Your task to perform on an android device: manage bookmarks in the chrome app Image 0: 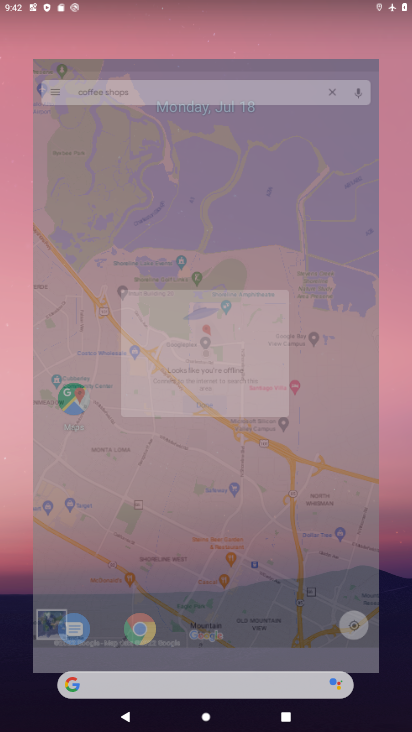
Step 0: drag from (275, 507) to (273, 247)
Your task to perform on an android device: manage bookmarks in the chrome app Image 1: 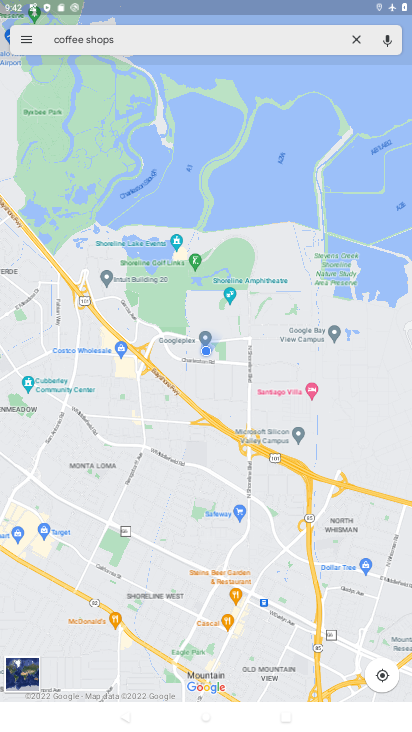
Step 1: press home button
Your task to perform on an android device: manage bookmarks in the chrome app Image 2: 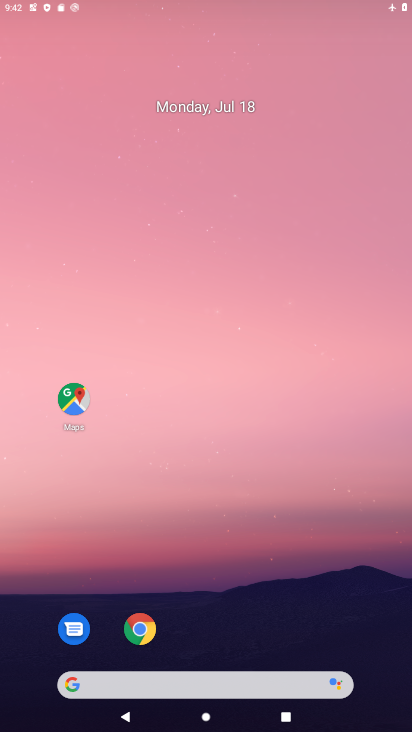
Step 2: drag from (328, 658) to (98, 99)
Your task to perform on an android device: manage bookmarks in the chrome app Image 3: 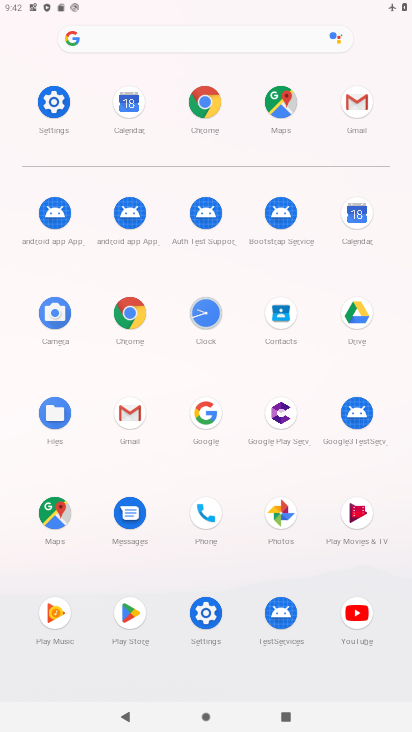
Step 3: click (129, 312)
Your task to perform on an android device: manage bookmarks in the chrome app Image 4: 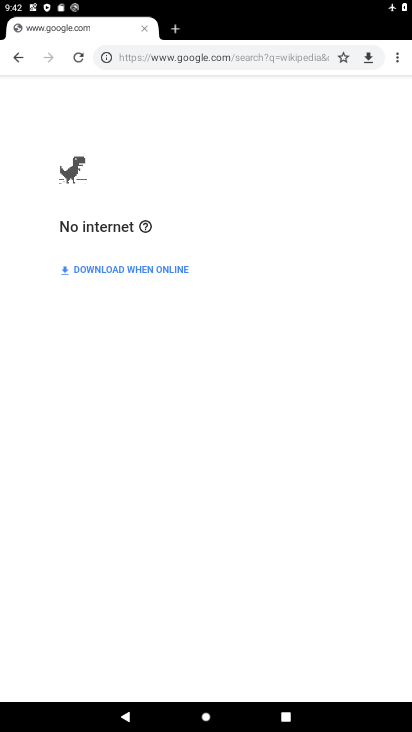
Step 4: drag from (392, 58) to (299, 166)
Your task to perform on an android device: manage bookmarks in the chrome app Image 5: 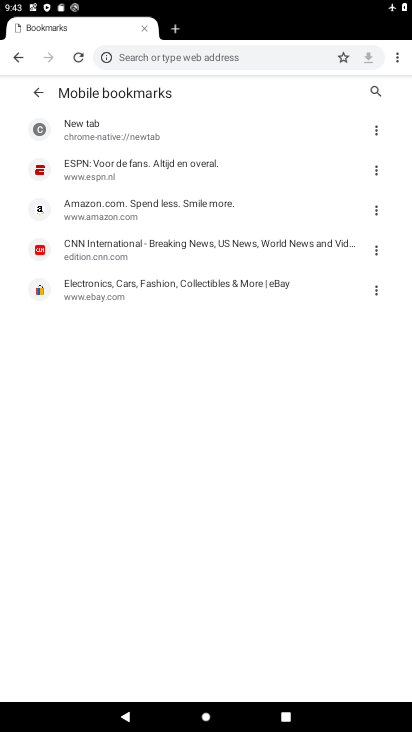
Step 5: click (379, 165)
Your task to perform on an android device: manage bookmarks in the chrome app Image 6: 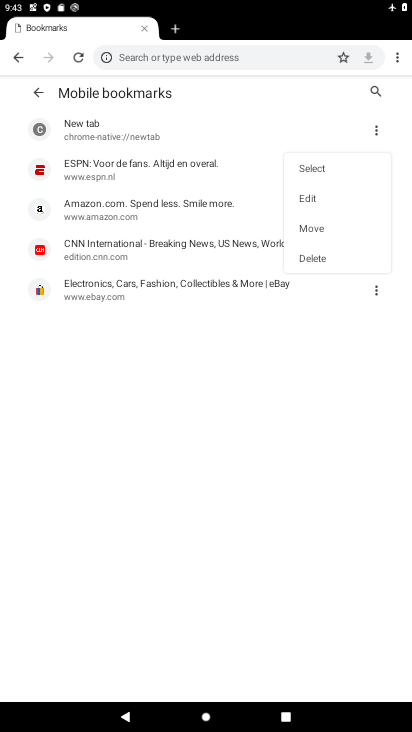
Step 6: click (315, 254)
Your task to perform on an android device: manage bookmarks in the chrome app Image 7: 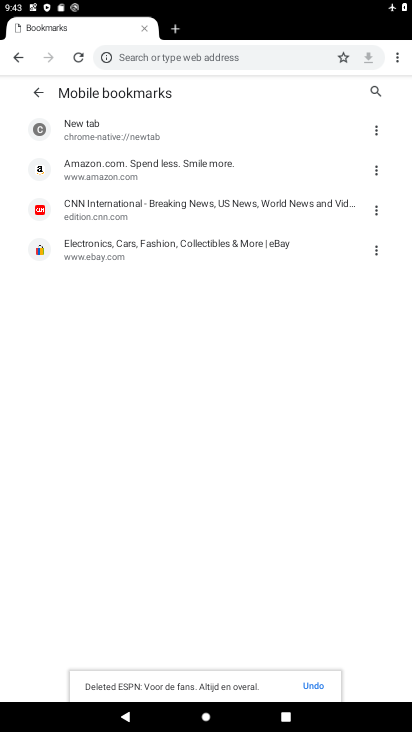
Step 7: task complete